Your task to perform on an android device: Go to ESPN.com Image 0: 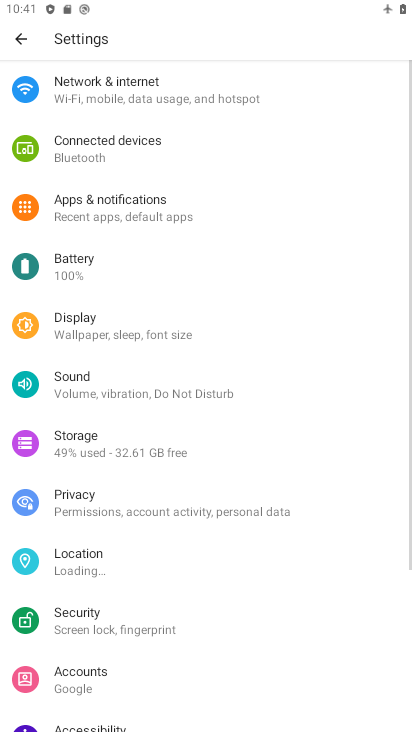
Step 0: press home button
Your task to perform on an android device: Go to ESPN.com Image 1: 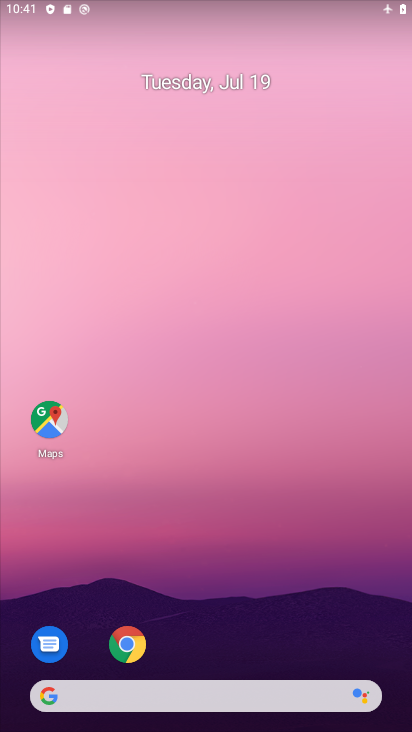
Step 1: click (131, 637)
Your task to perform on an android device: Go to ESPN.com Image 2: 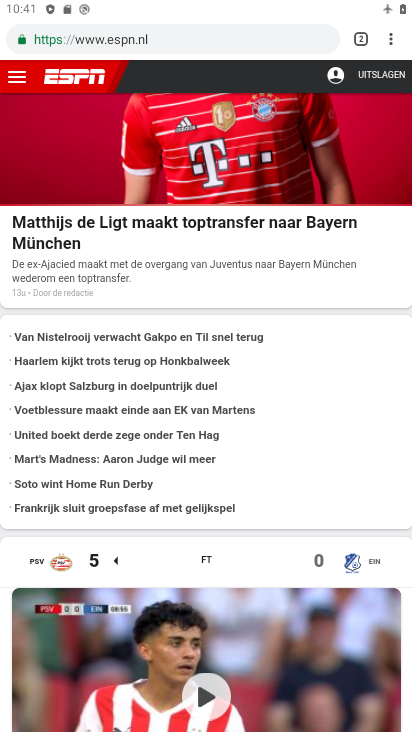
Step 2: task complete